Your task to perform on an android device: turn on priority inbox in the gmail app Image 0: 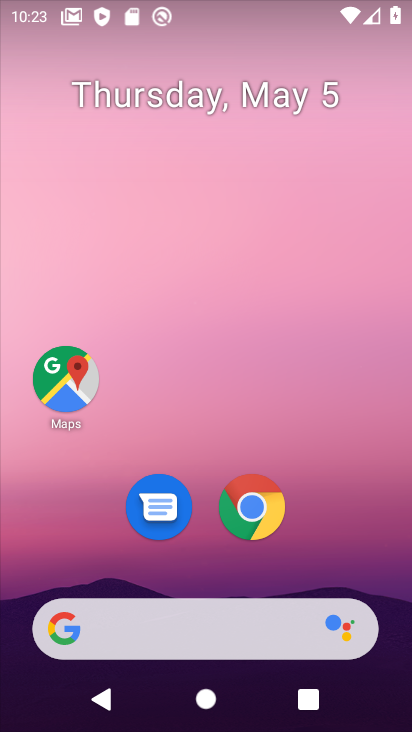
Step 0: drag from (373, 574) to (382, 20)
Your task to perform on an android device: turn on priority inbox in the gmail app Image 1: 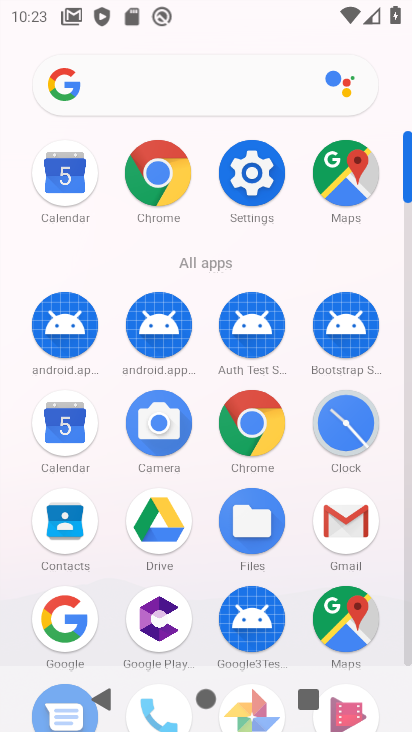
Step 1: click (333, 526)
Your task to perform on an android device: turn on priority inbox in the gmail app Image 2: 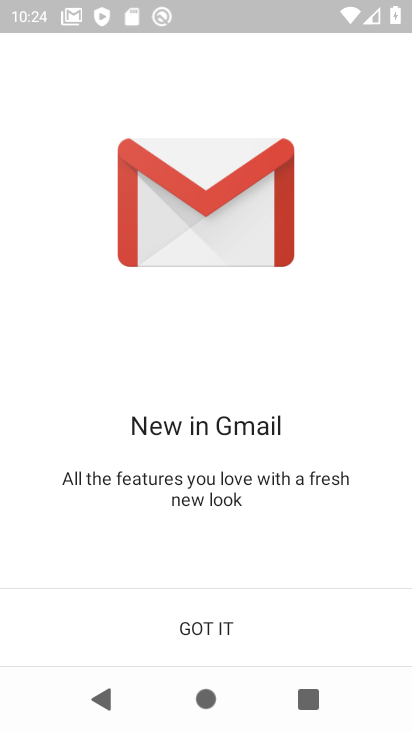
Step 2: click (188, 626)
Your task to perform on an android device: turn on priority inbox in the gmail app Image 3: 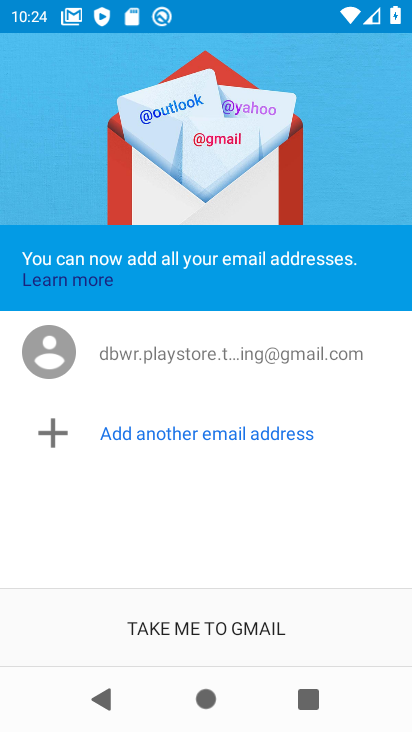
Step 3: click (188, 626)
Your task to perform on an android device: turn on priority inbox in the gmail app Image 4: 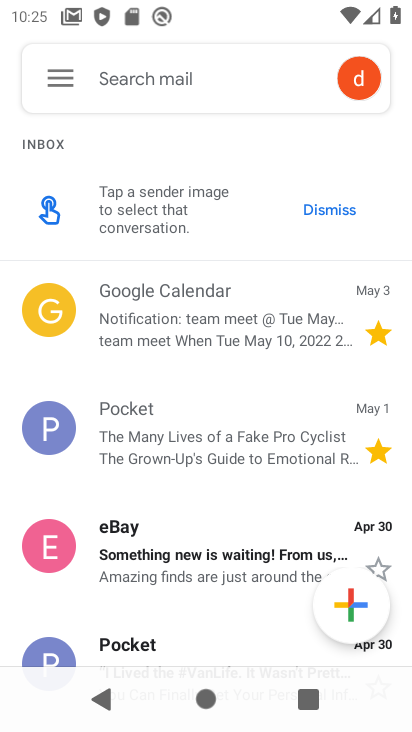
Step 4: click (46, 88)
Your task to perform on an android device: turn on priority inbox in the gmail app Image 5: 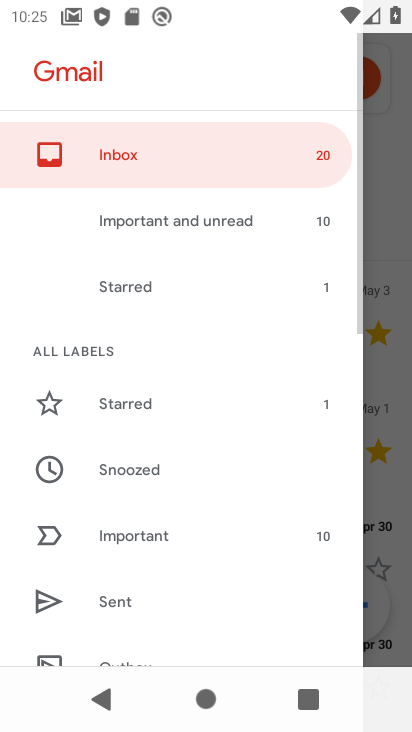
Step 5: drag from (198, 567) to (193, 84)
Your task to perform on an android device: turn on priority inbox in the gmail app Image 6: 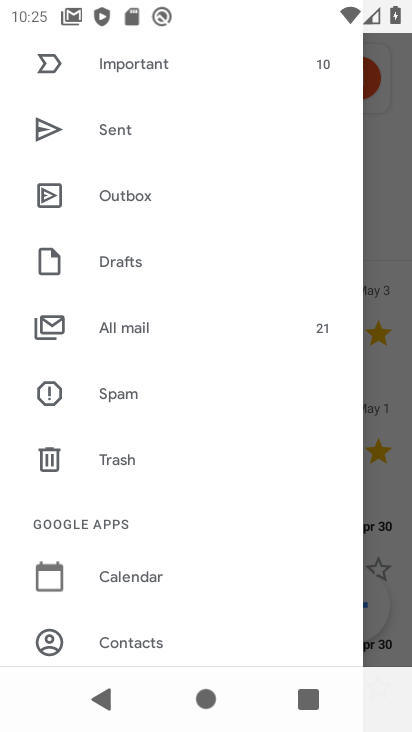
Step 6: drag from (230, 587) to (235, 321)
Your task to perform on an android device: turn on priority inbox in the gmail app Image 7: 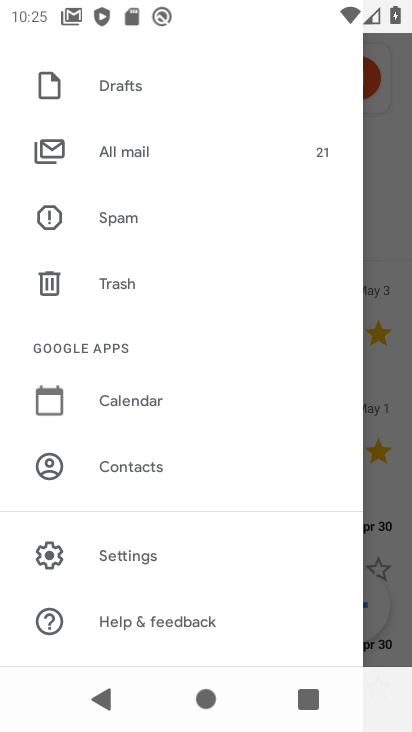
Step 7: click (121, 559)
Your task to perform on an android device: turn on priority inbox in the gmail app Image 8: 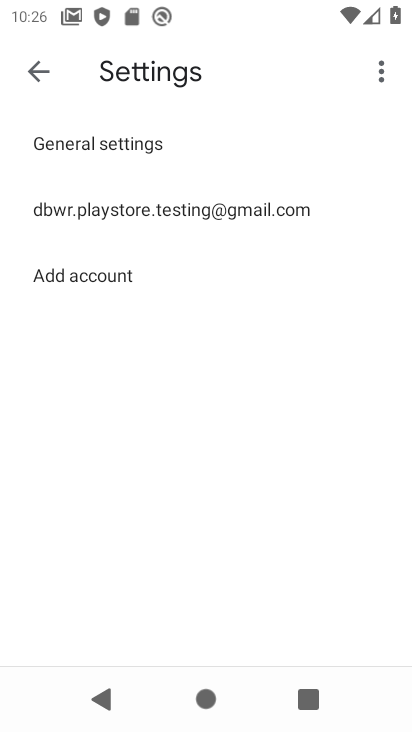
Step 8: click (75, 207)
Your task to perform on an android device: turn on priority inbox in the gmail app Image 9: 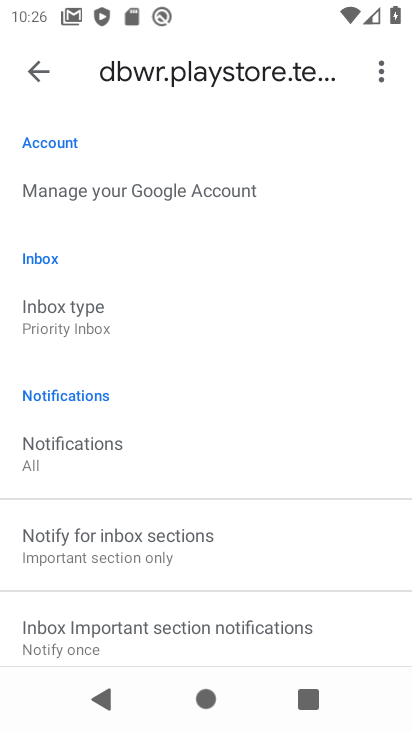
Step 9: click (59, 320)
Your task to perform on an android device: turn on priority inbox in the gmail app Image 10: 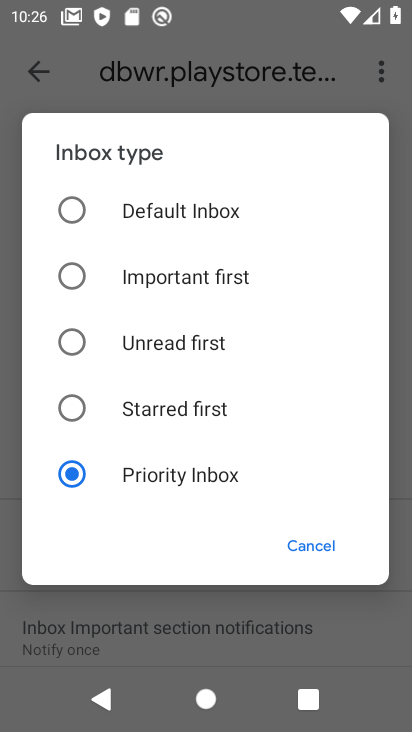
Step 10: task complete